Your task to perform on an android device: Go to settings Image 0: 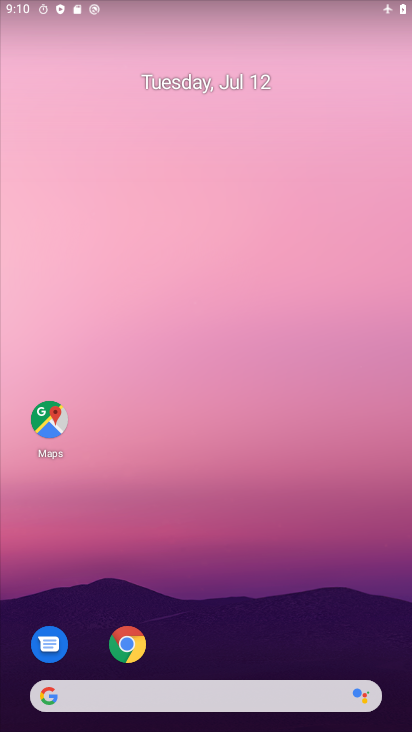
Step 0: drag from (187, 639) to (194, 155)
Your task to perform on an android device: Go to settings Image 1: 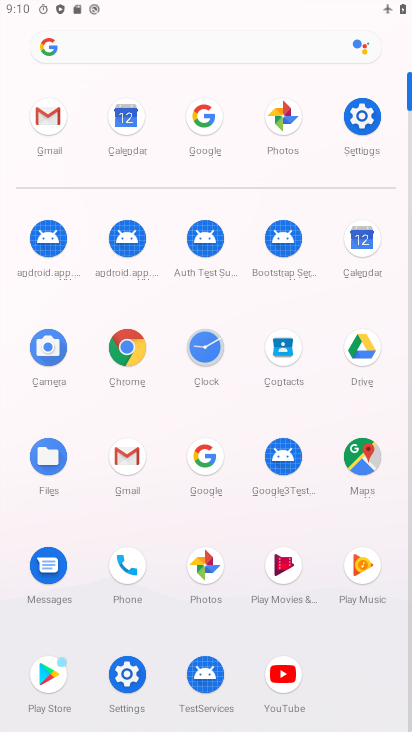
Step 1: click (355, 108)
Your task to perform on an android device: Go to settings Image 2: 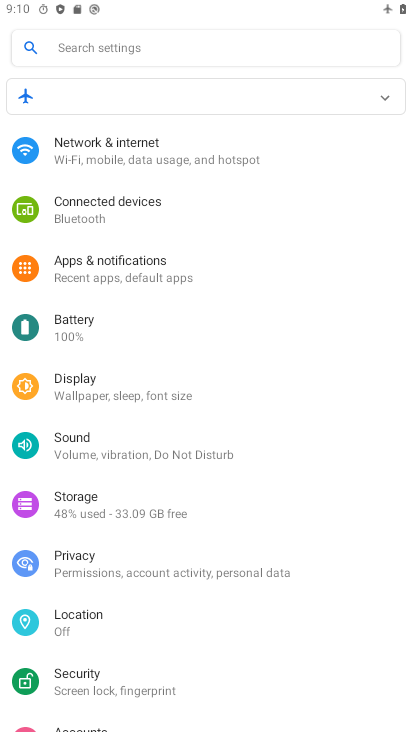
Step 2: task complete